Your task to perform on an android device: Open calendar and show me the third week of next month Image 0: 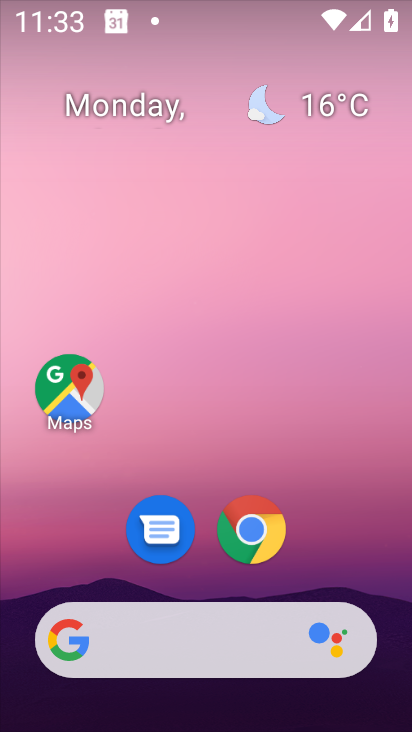
Step 0: drag from (216, 375) to (231, 189)
Your task to perform on an android device: Open calendar and show me the third week of next month Image 1: 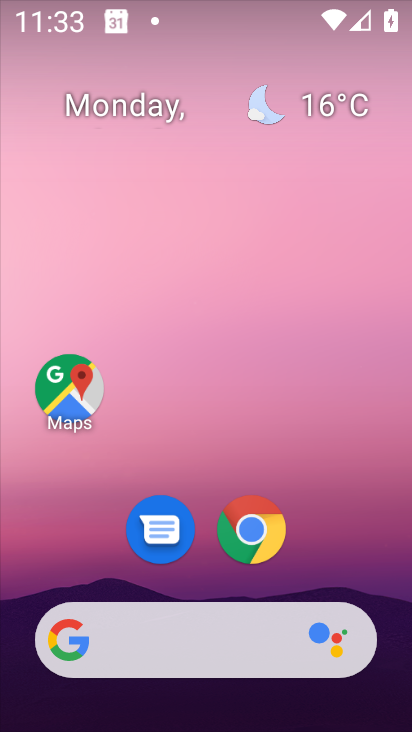
Step 1: drag from (211, 580) to (225, 131)
Your task to perform on an android device: Open calendar and show me the third week of next month Image 2: 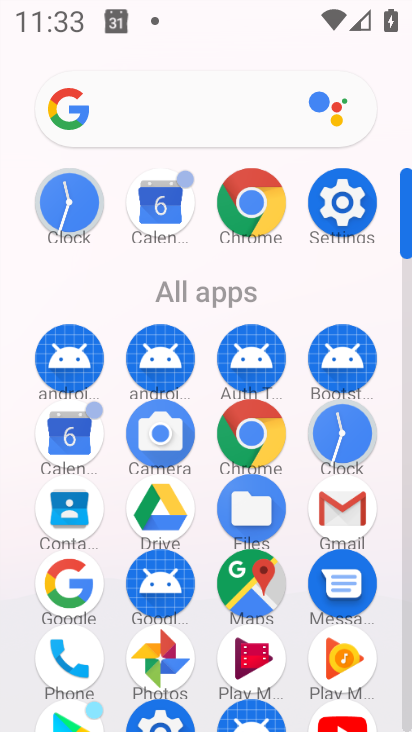
Step 2: click (70, 434)
Your task to perform on an android device: Open calendar and show me the third week of next month Image 3: 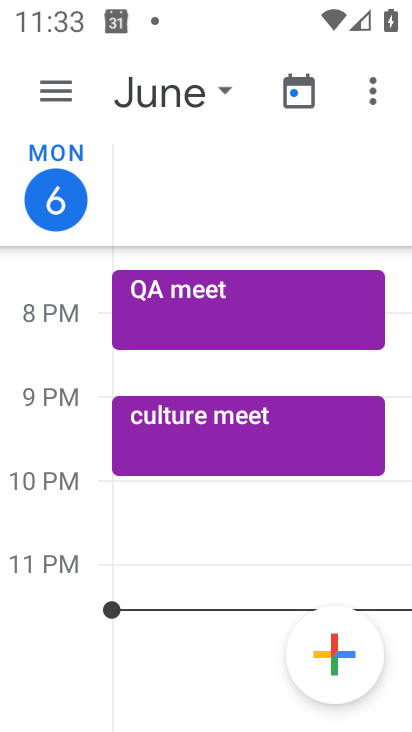
Step 3: click (214, 95)
Your task to perform on an android device: Open calendar and show me the third week of next month Image 4: 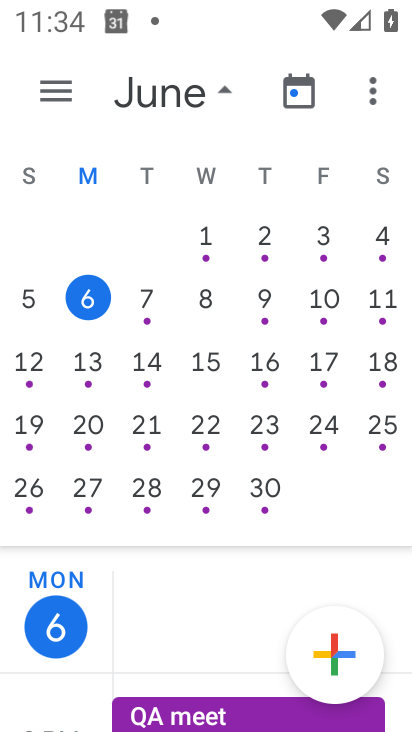
Step 4: drag from (404, 326) to (23, 345)
Your task to perform on an android device: Open calendar and show me the third week of next month Image 5: 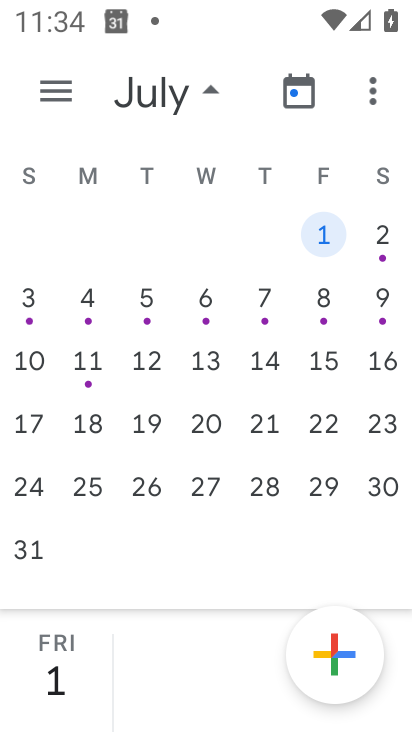
Step 5: click (33, 362)
Your task to perform on an android device: Open calendar and show me the third week of next month Image 6: 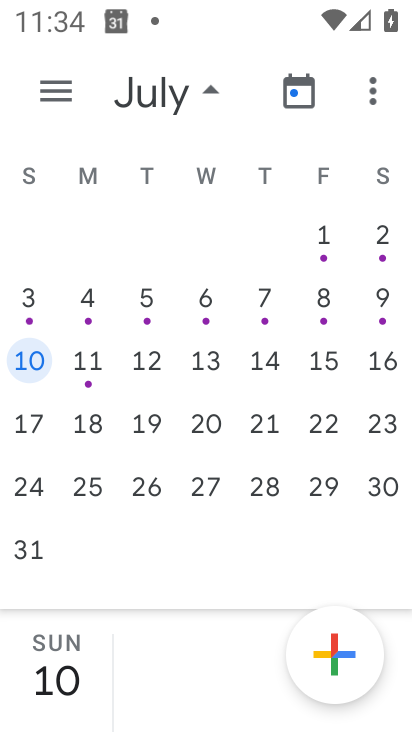
Step 6: click (83, 367)
Your task to perform on an android device: Open calendar and show me the third week of next month Image 7: 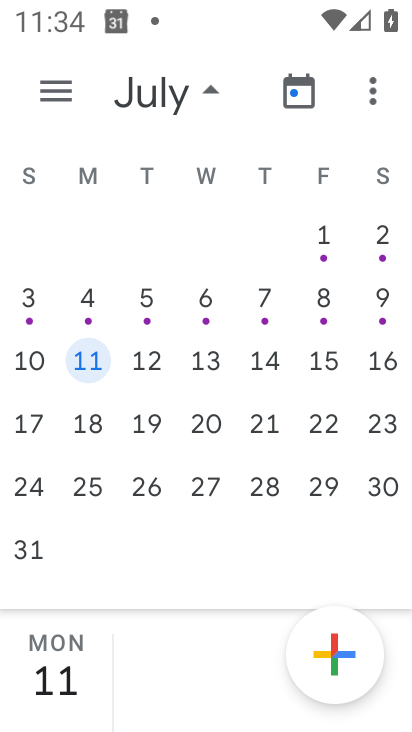
Step 7: click (131, 371)
Your task to perform on an android device: Open calendar and show me the third week of next month Image 8: 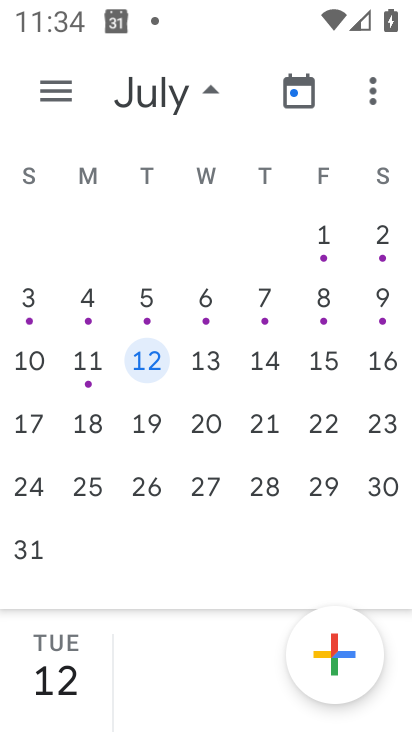
Step 8: click (189, 372)
Your task to perform on an android device: Open calendar and show me the third week of next month Image 9: 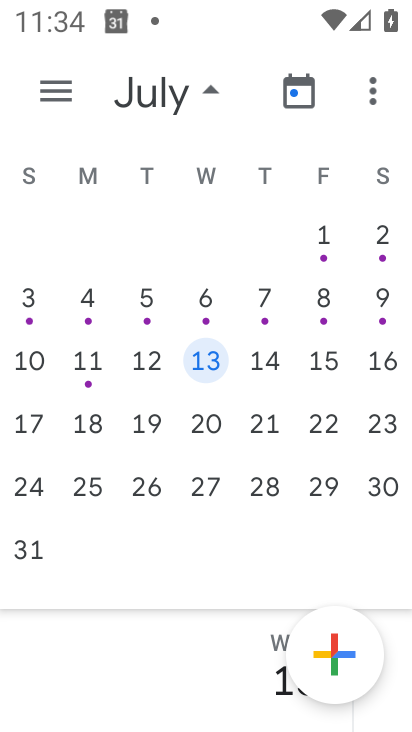
Step 9: click (268, 369)
Your task to perform on an android device: Open calendar and show me the third week of next month Image 10: 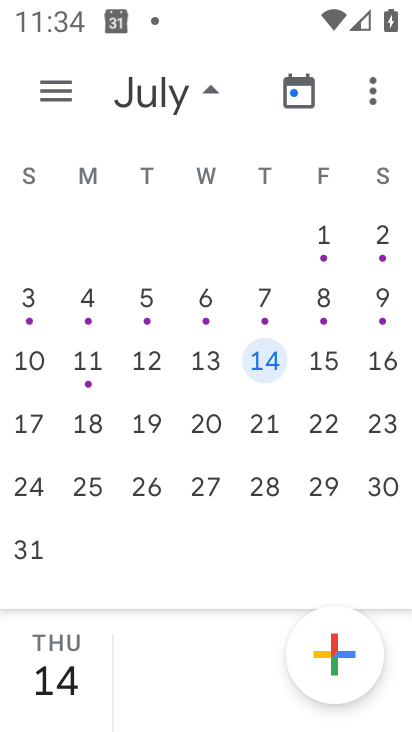
Step 10: click (310, 371)
Your task to perform on an android device: Open calendar and show me the third week of next month Image 11: 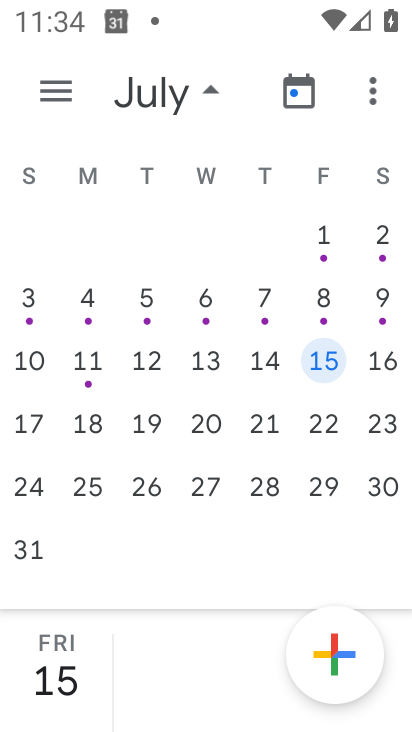
Step 11: click (392, 371)
Your task to perform on an android device: Open calendar and show me the third week of next month Image 12: 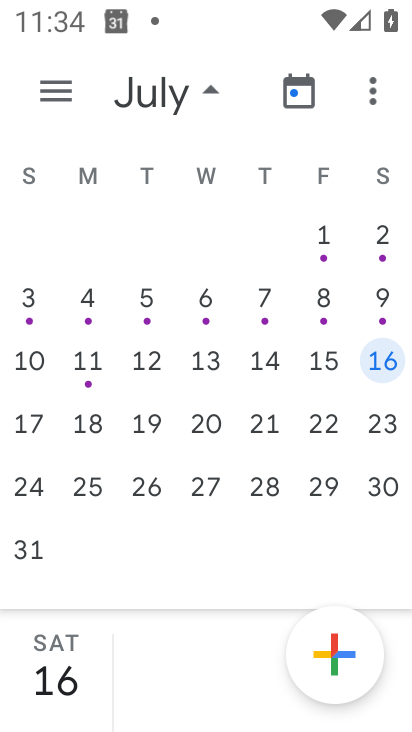
Step 12: task complete